Your task to perform on an android device: Open Google Maps and go to "Timeline" Image 0: 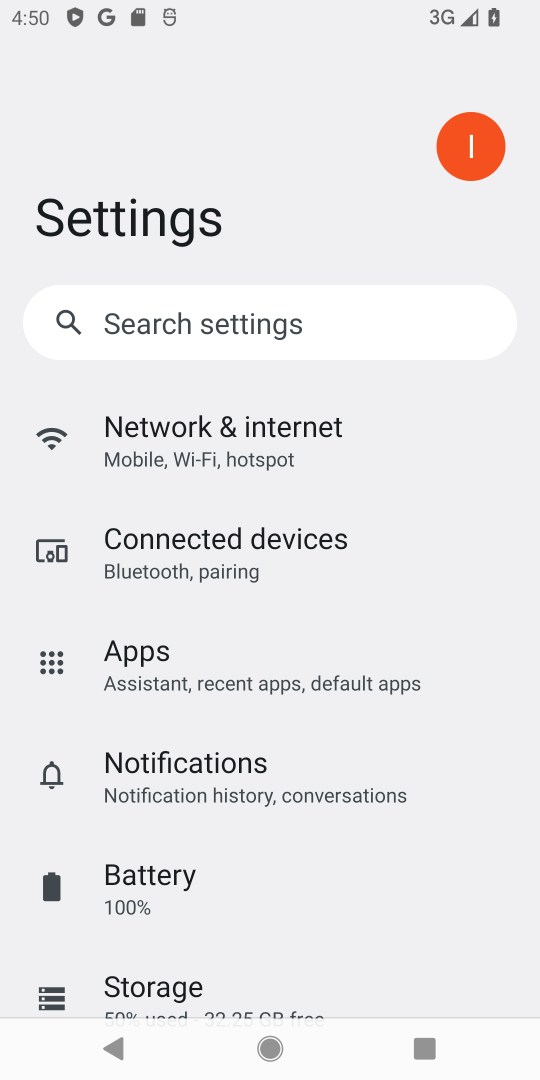
Step 0: press home button
Your task to perform on an android device: Open Google Maps and go to "Timeline" Image 1: 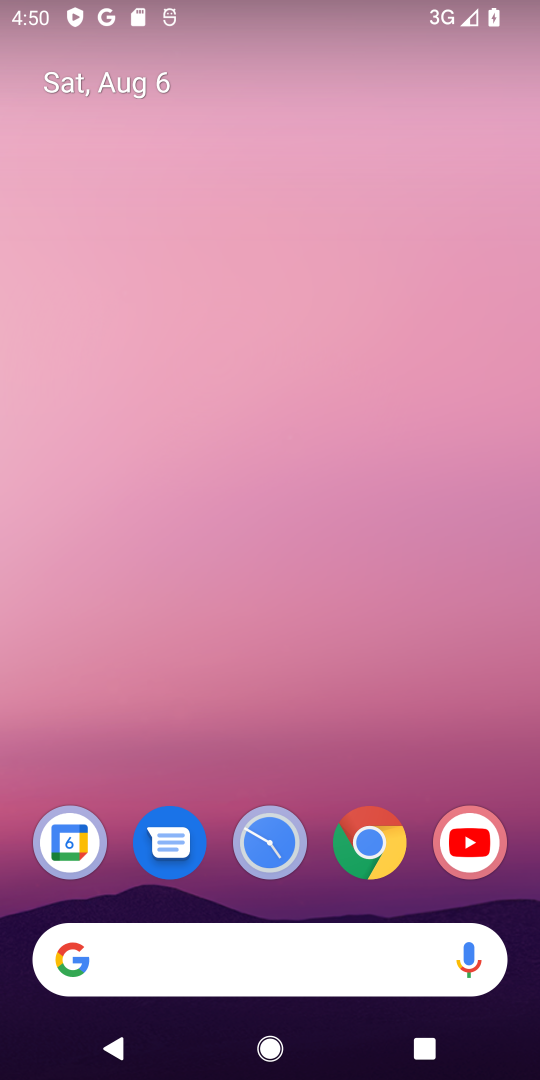
Step 1: drag from (499, 930) to (378, 215)
Your task to perform on an android device: Open Google Maps and go to "Timeline" Image 2: 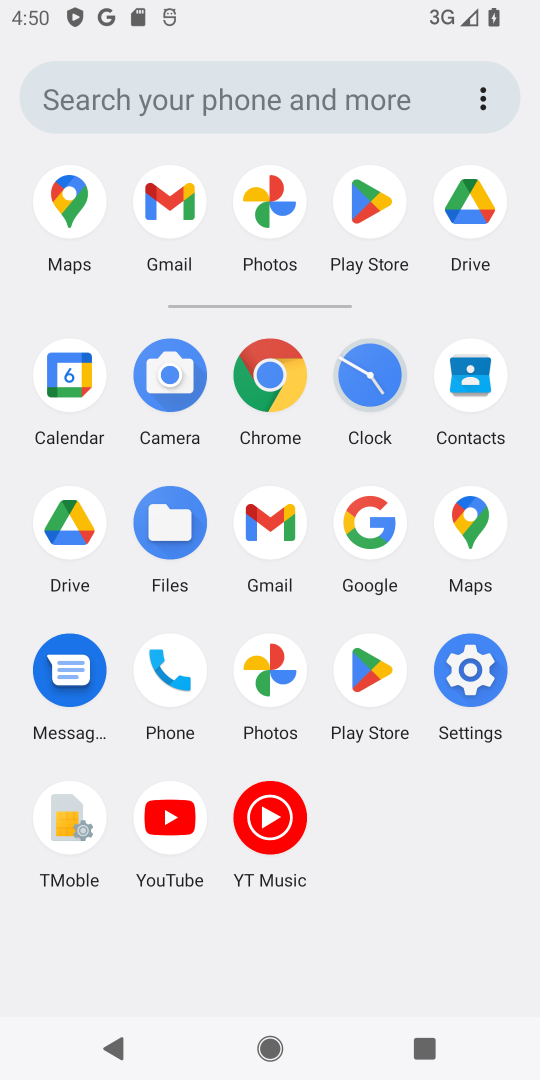
Step 2: click (468, 528)
Your task to perform on an android device: Open Google Maps and go to "Timeline" Image 3: 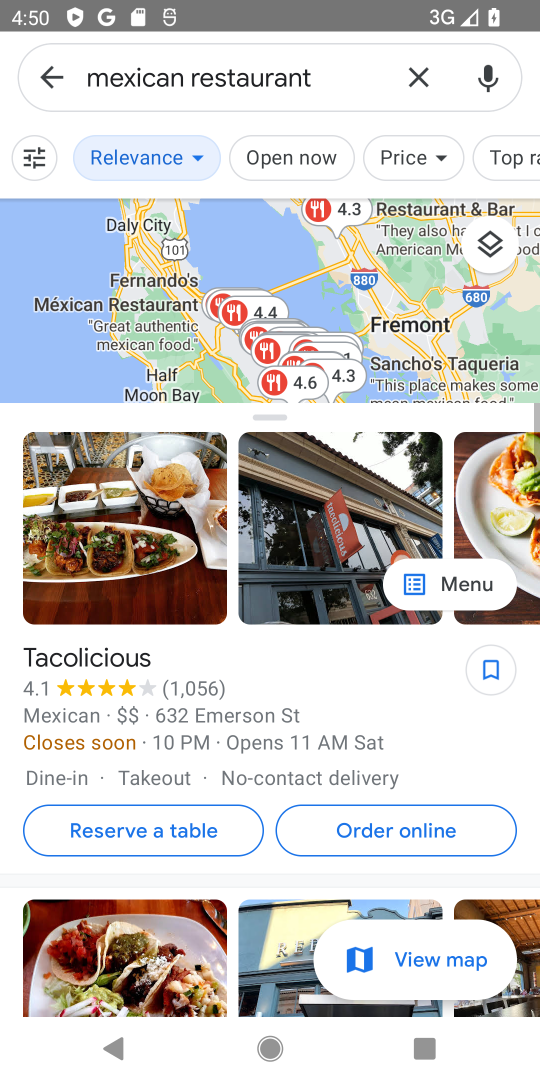
Step 3: click (52, 66)
Your task to perform on an android device: Open Google Maps and go to "Timeline" Image 4: 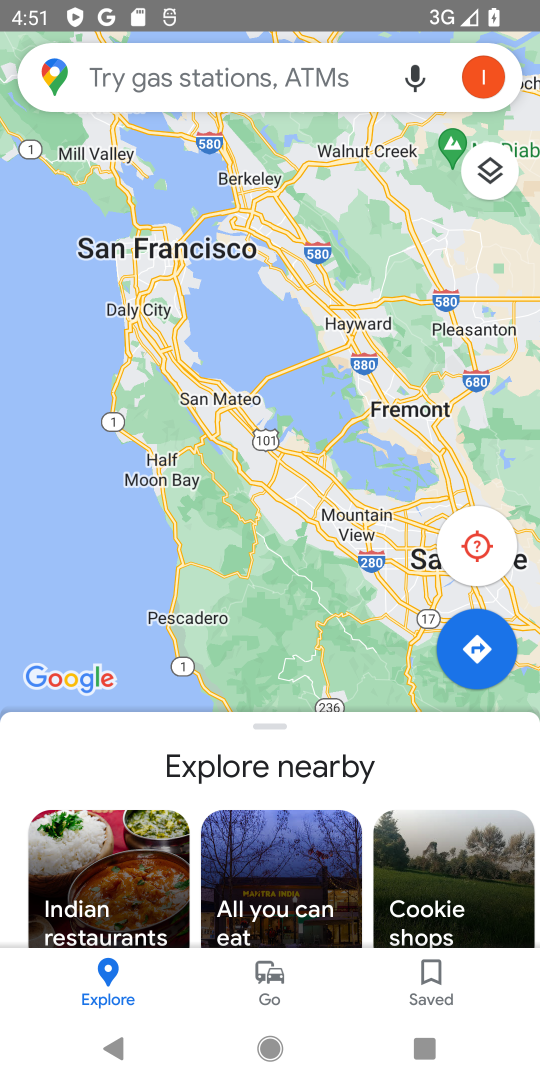
Step 4: drag from (301, 221) to (311, 563)
Your task to perform on an android device: Open Google Maps and go to "Timeline" Image 5: 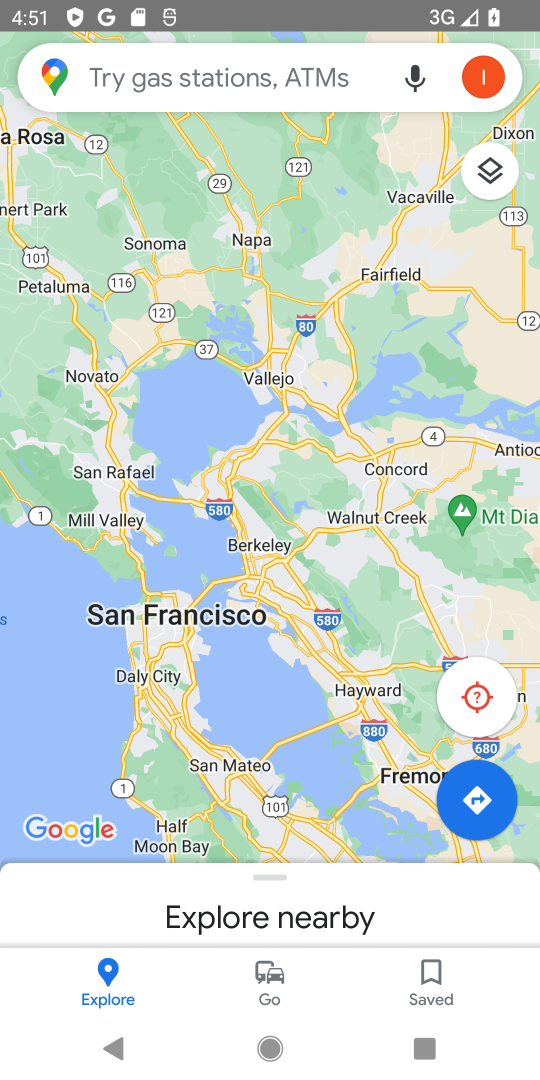
Step 5: drag from (152, 378) to (170, 673)
Your task to perform on an android device: Open Google Maps and go to "Timeline" Image 6: 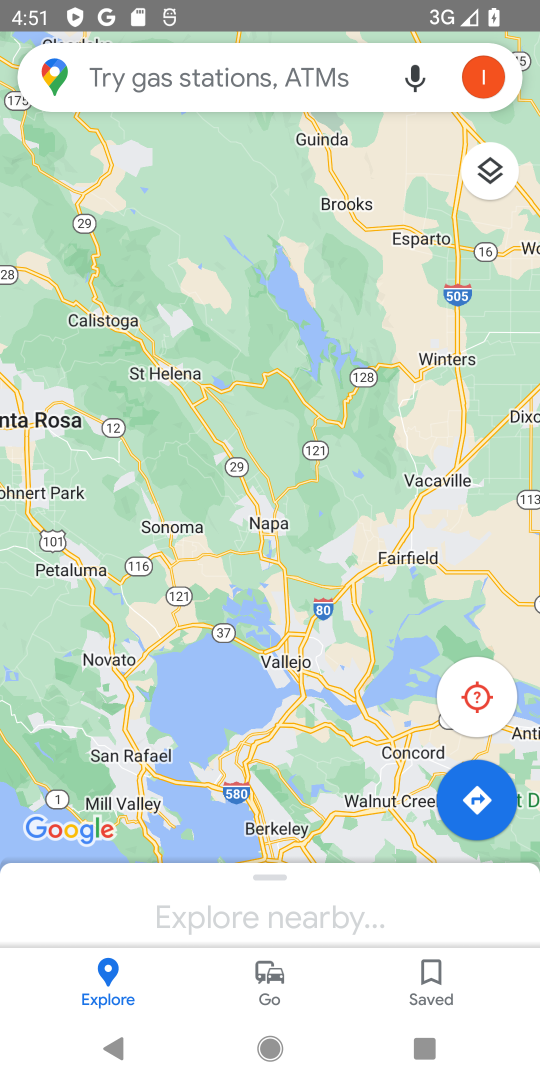
Step 6: click (150, 72)
Your task to perform on an android device: Open Google Maps and go to "Timeline" Image 7: 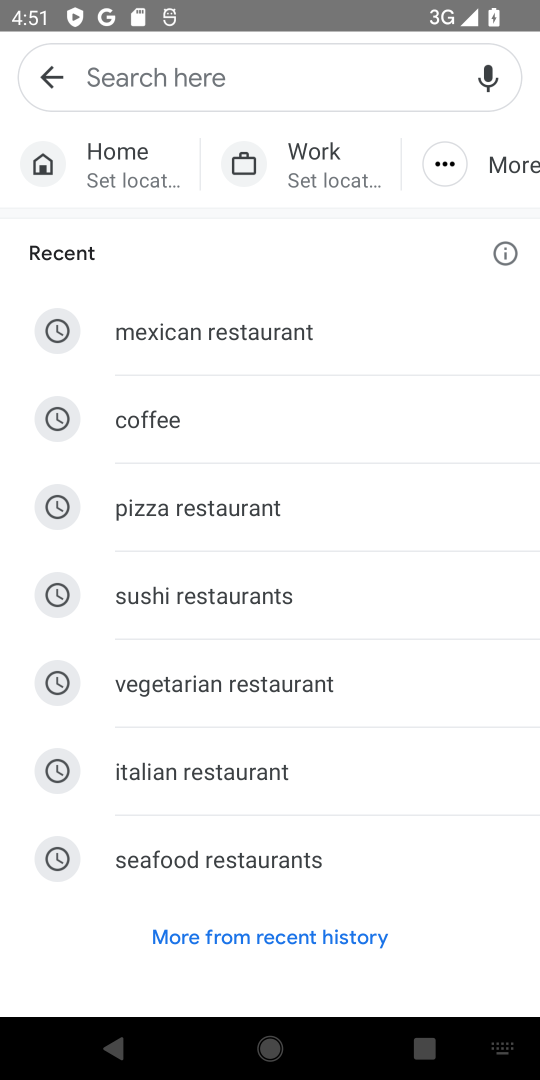
Step 7: click (56, 77)
Your task to perform on an android device: Open Google Maps and go to "Timeline" Image 8: 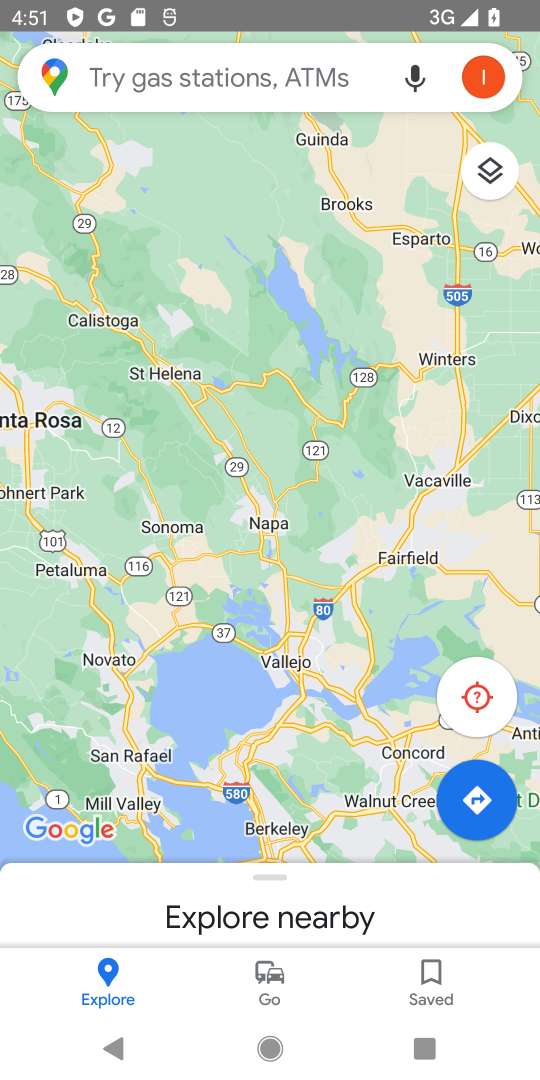
Step 8: press back button
Your task to perform on an android device: Open Google Maps and go to "Timeline" Image 9: 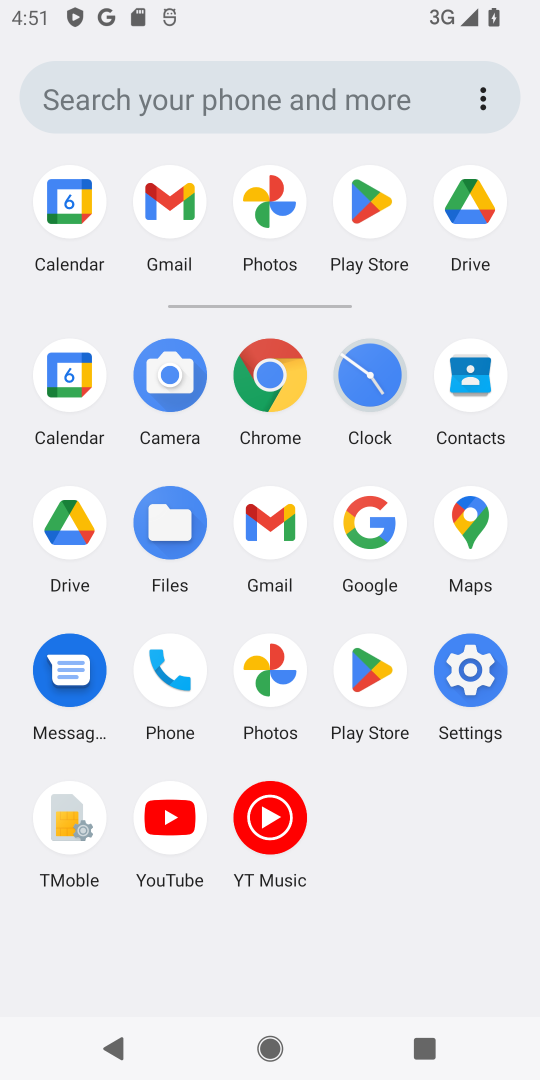
Step 9: click (456, 526)
Your task to perform on an android device: Open Google Maps and go to "Timeline" Image 10: 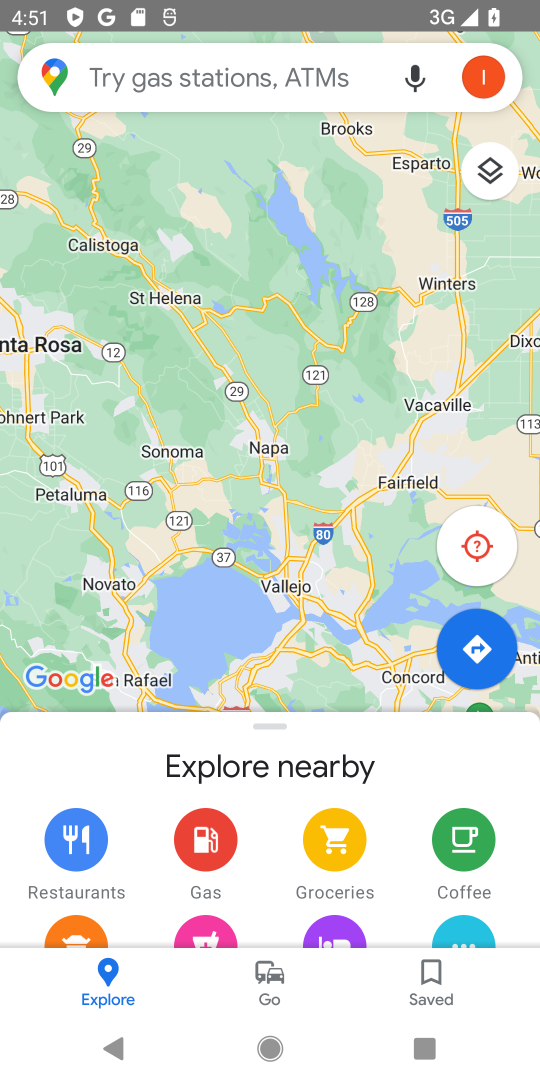
Step 10: click (480, 84)
Your task to perform on an android device: Open Google Maps and go to "Timeline" Image 11: 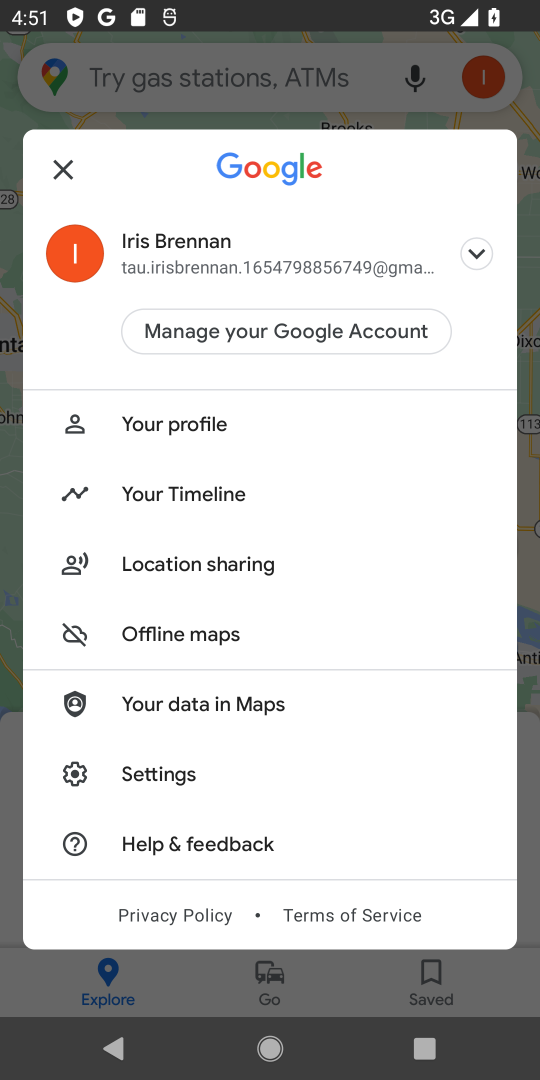
Step 11: click (180, 492)
Your task to perform on an android device: Open Google Maps and go to "Timeline" Image 12: 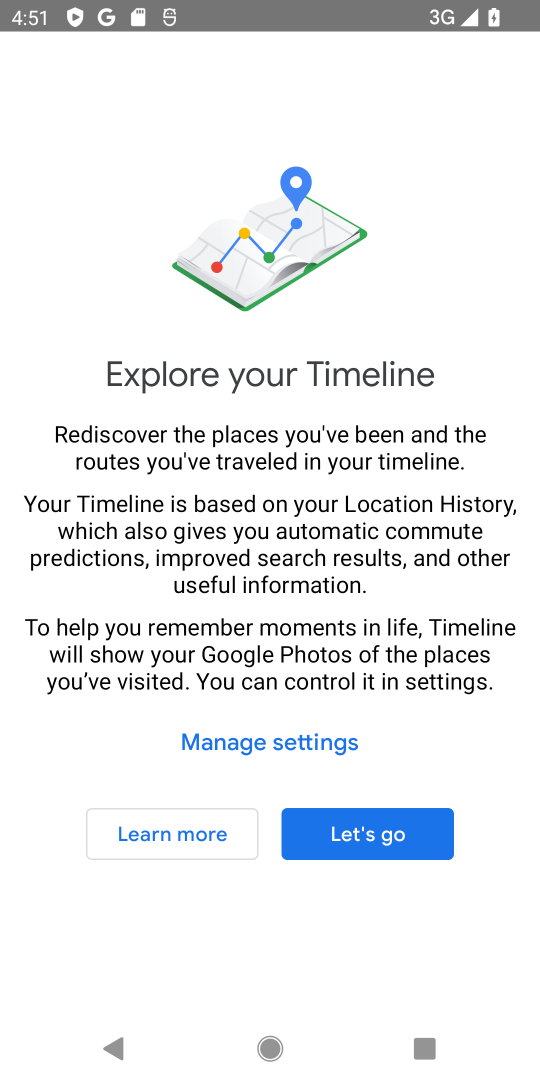
Step 12: click (343, 837)
Your task to perform on an android device: Open Google Maps and go to "Timeline" Image 13: 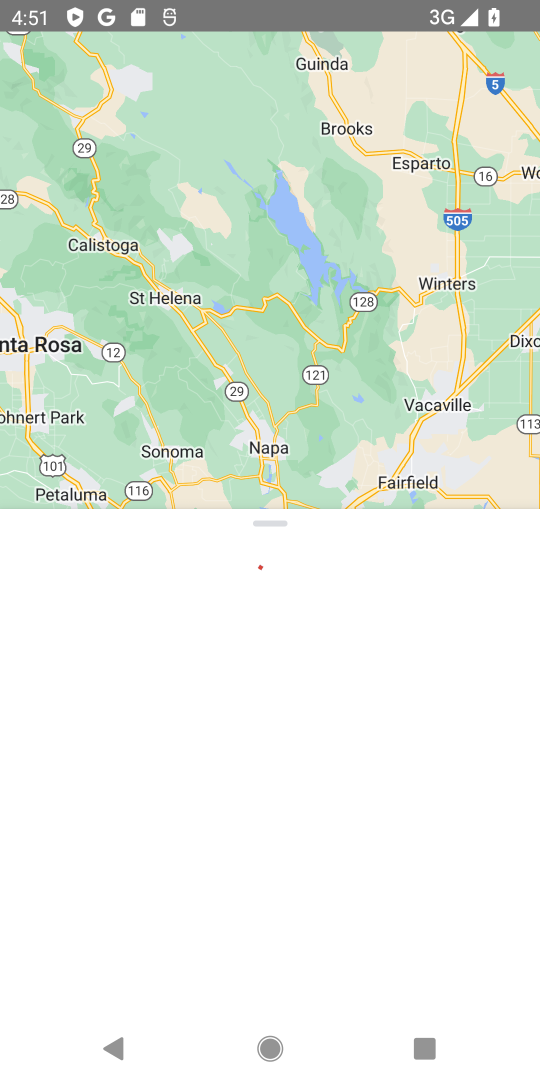
Step 13: task complete